Your task to perform on an android device: show emergency info Image 0: 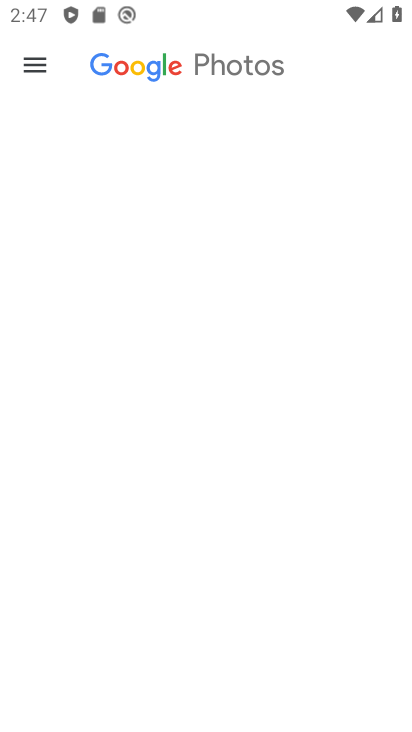
Step 0: press home button
Your task to perform on an android device: show emergency info Image 1: 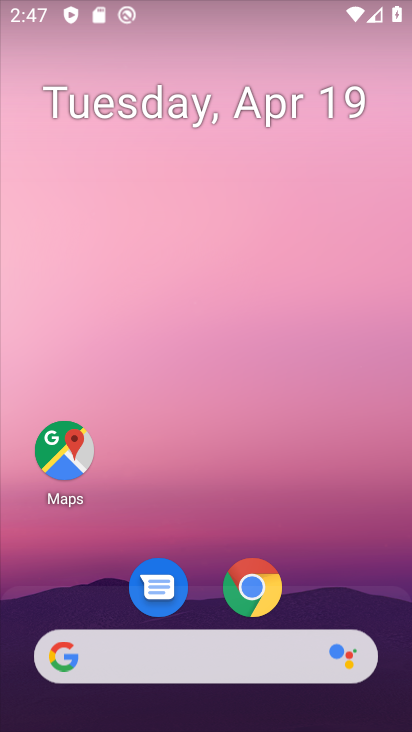
Step 1: drag from (388, 639) to (194, 59)
Your task to perform on an android device: show emergency info Image 2: 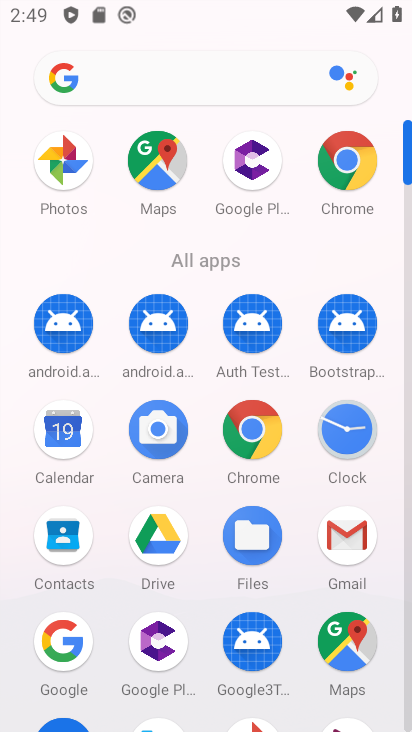
Step 2: click (407, 723)
Your task to perform on an android device: show emergency info Image 3: 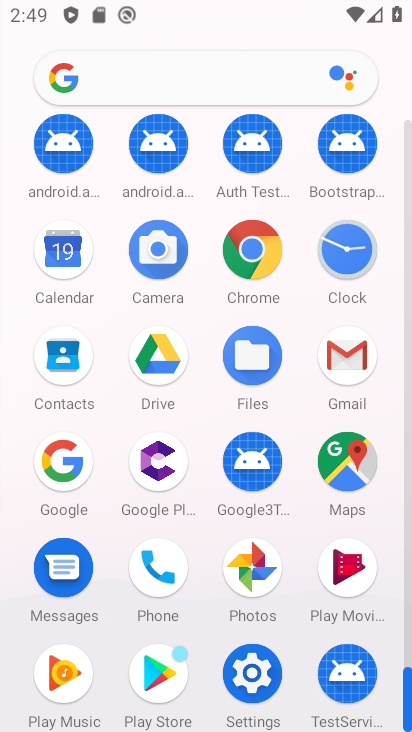
Step 3: click (259, 679)
Your task to perform on an android device: show emergency info Image 4: 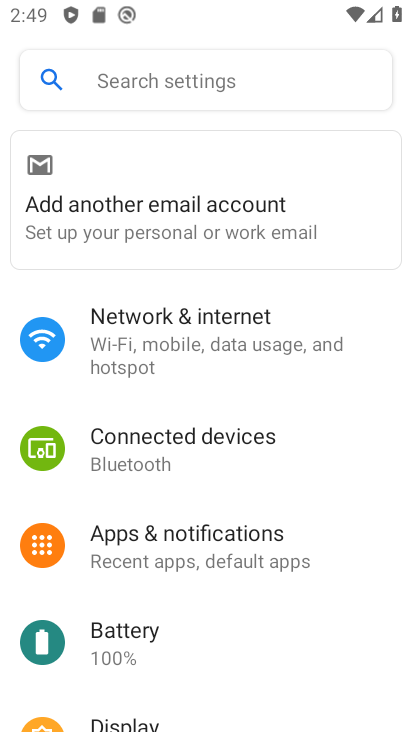
Step 4: drag from (140, 653) to (338, 66)
Your task to perform on an android device: show emergency info Image 5: 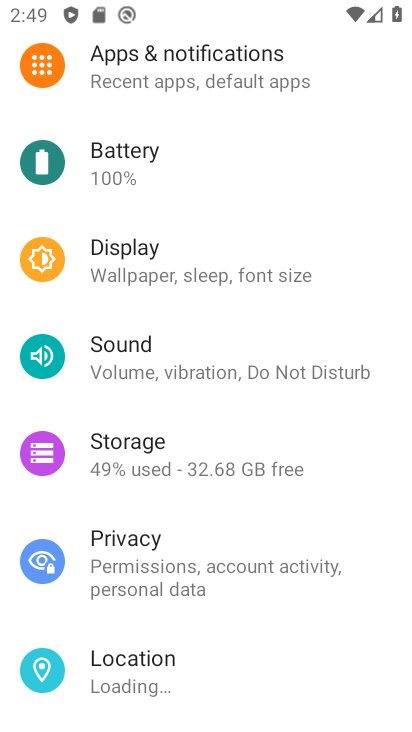
Step 5: drag from (164, 643) to (294, 87)
Your task to perform on an android device: show emergency info Image 6: 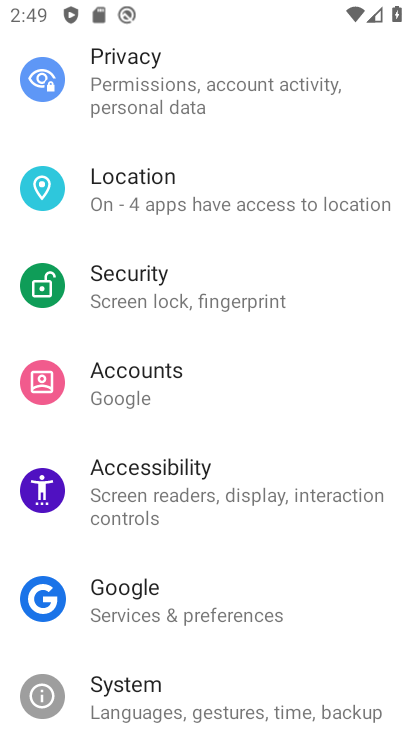
Step 6: drag from (177, 670) to (297, 74)
Your task to perform on an android device: show emergency info Image 7: 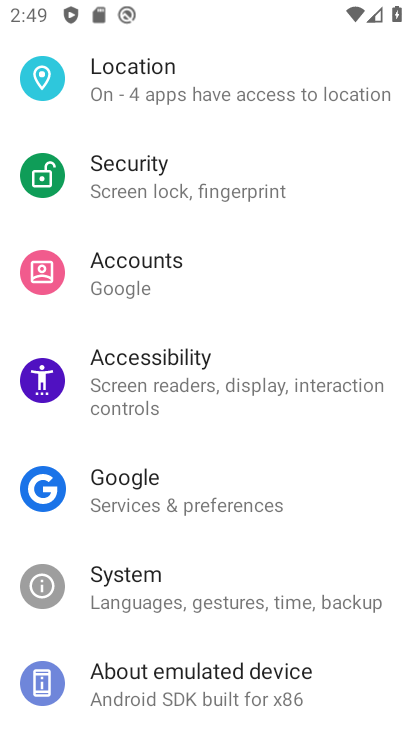
Step 7: drag from (118, 618) to (246, 47)
Your task to perform on an android device: show emergency info Image 8: 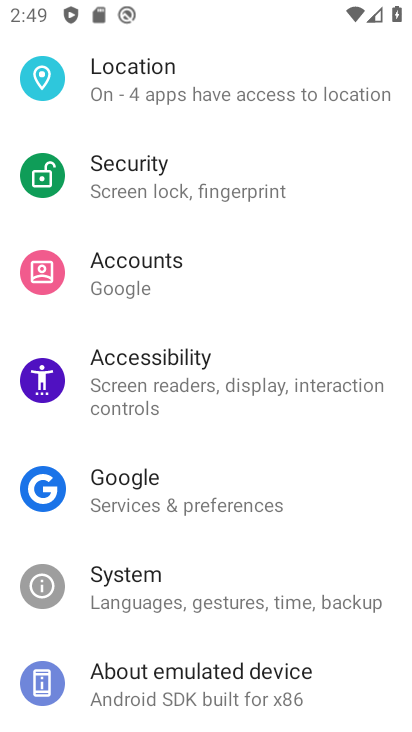
Step 8: click (263, 659)
Your task to perform on an android device: show emergency info Image 9: 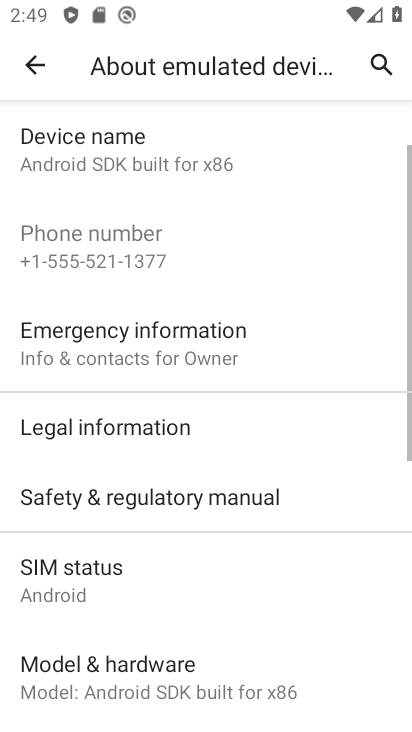
Step 9: click (256, 339)
Your task to perform on an android device: show emergency info Image 10: 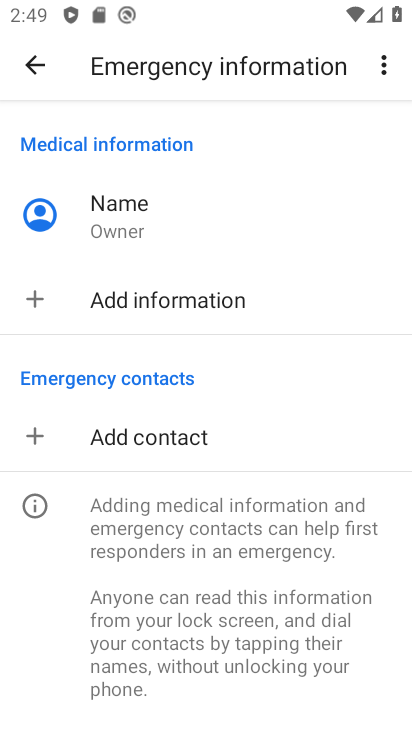
Step 10: task complete